Your task to perform on an android device: uninstall "Grab" Image 0: 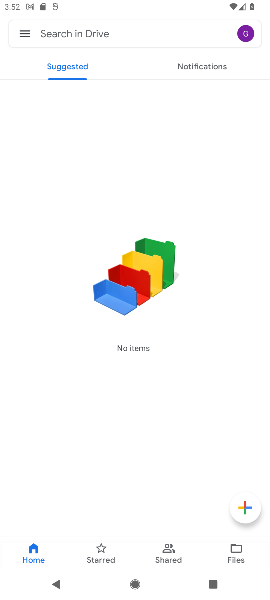
Step 0: press home button
Your task to perform on an android device: uninstall "Grab" Image 1: 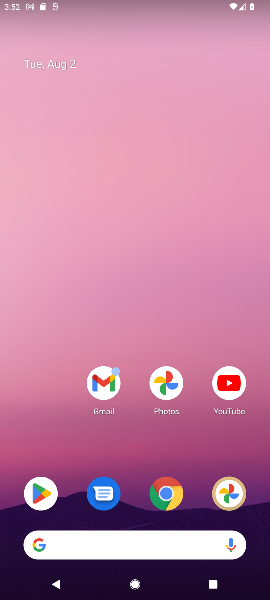
Step 1: click (39, 501)
Your task to perform on an android device: uninstall "Grab" Image 2: 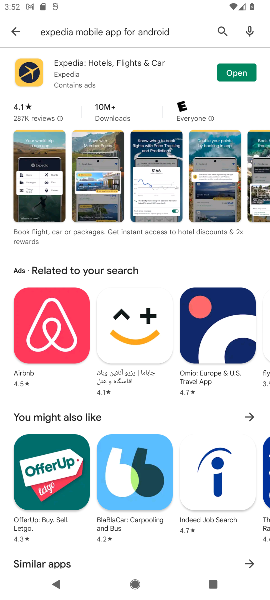
Step 2: click (221, 27)
Your task to perform on an android device: uninstall "Grab" Image 3: 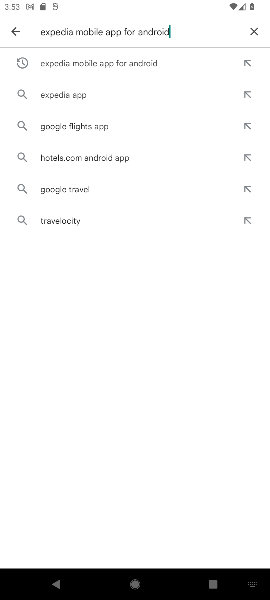
Step 3: click (254, 33)
Your task to perform on an android device: uninstall "Grab" Image 4: 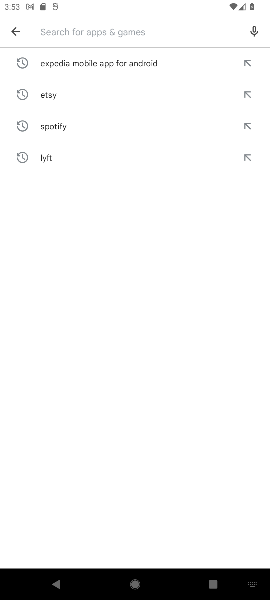
Step 4: click (124, 29)
Your task to perform on an android device: uninstall "Grab" Image 5: 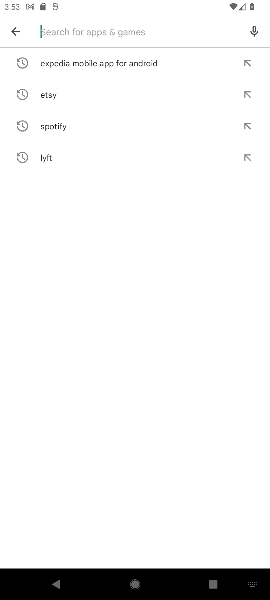
Step 5: type "grab"
Your task to perform on an android device: uninstall "Grab" Image 6: 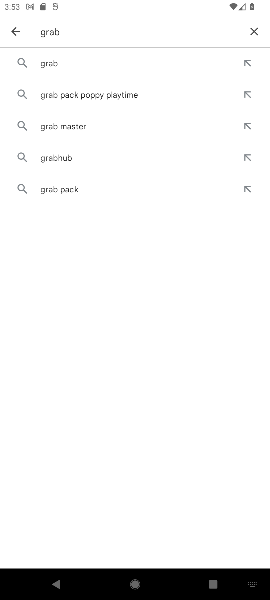
Step 6: click (49, 57)
Your task to perform on an android device: uninstall "Grab" Image 7: 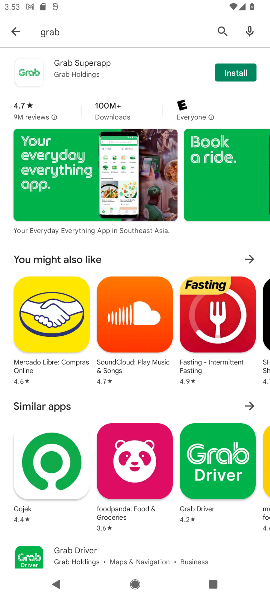
Step 7: task complete